Your task to perform on an android device: toggle priority inbox in the gmail app Image 0: 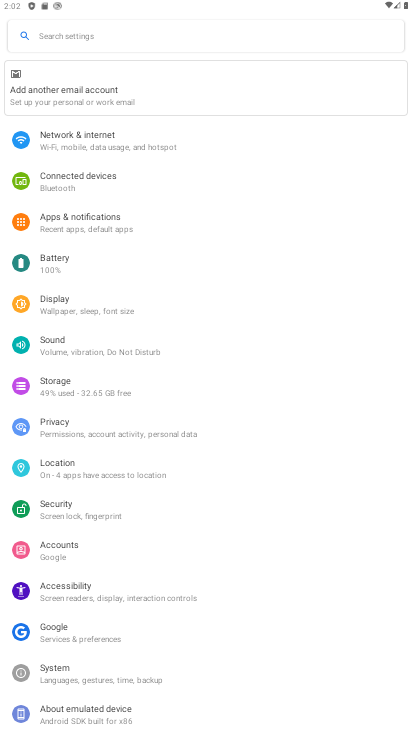
Step 0: press home button
Your task to perform on an android device: toggle priority inbox in the gmail app Image 1: 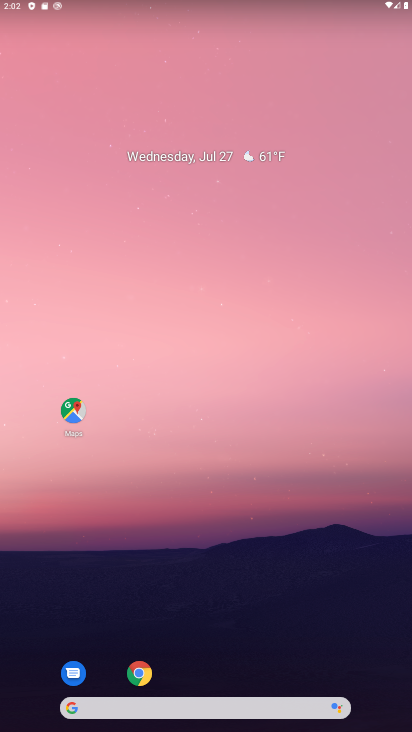
Step 1: drag from (213, 662) to (194, 114)
Your task to perform on an android device: toggle priority inbox in the gmail app Image 2: 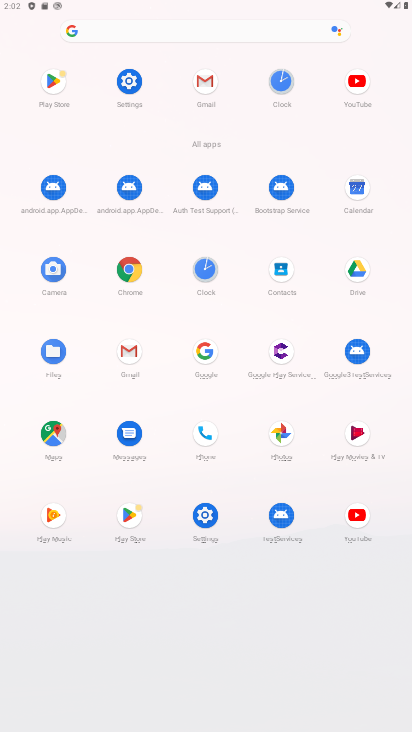
Step 2: click (205, 70)
Your task to perform on an android device: toggle priority inbox in the gmail app Image 3: 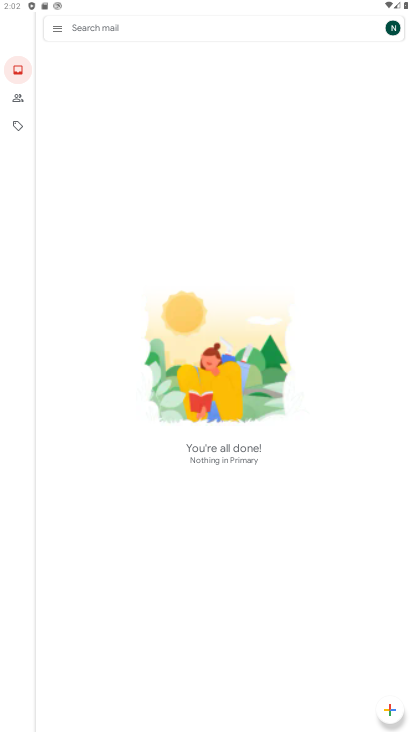
Step 3: click (55, 40)
Your task to perform on an android device: toggle priority inbox in the gmail app Image 4: 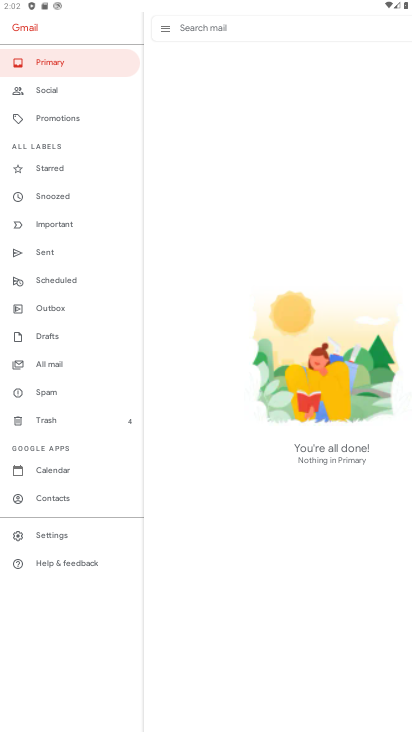
Step 4: click (61, 539)
Your task to perform on an android device: toggle priority inbox in the gmail app Image 5: 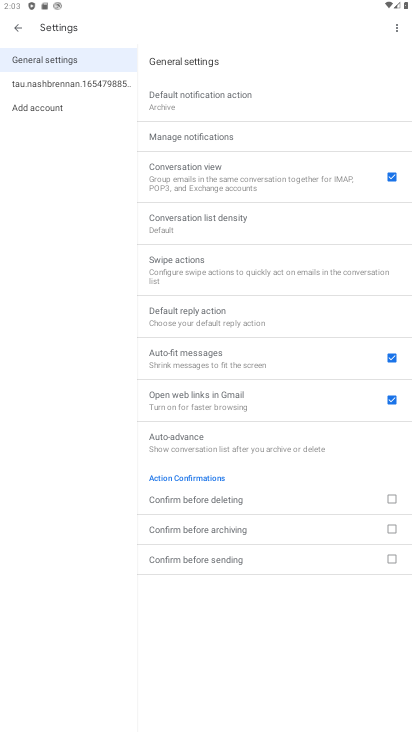
Step 5: click (113, 90)
Your task to perform on an android device: toggle priority inbox in the gmail app Image 6: 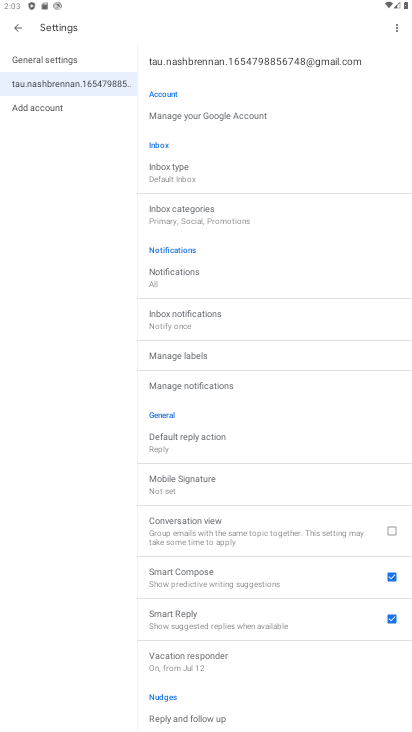
Step 6: click (210, 175)
Your task to perform on an android device: toggle priority inbox in the gmail app Image 7: 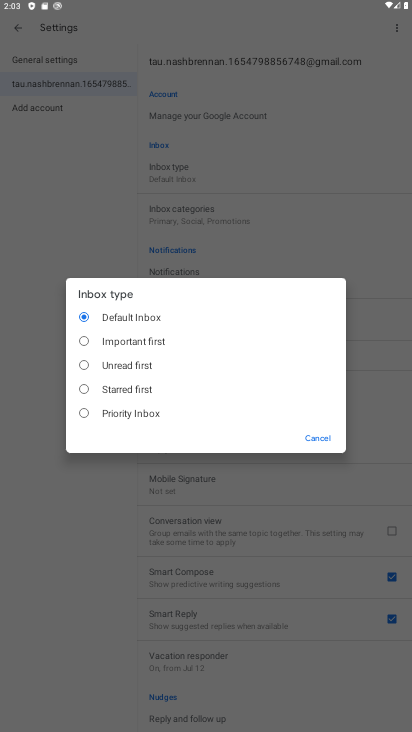
Step 7: click (123, 388)
Your task to perform on an android device: toggle priority inbox in the gmail app Image 8: 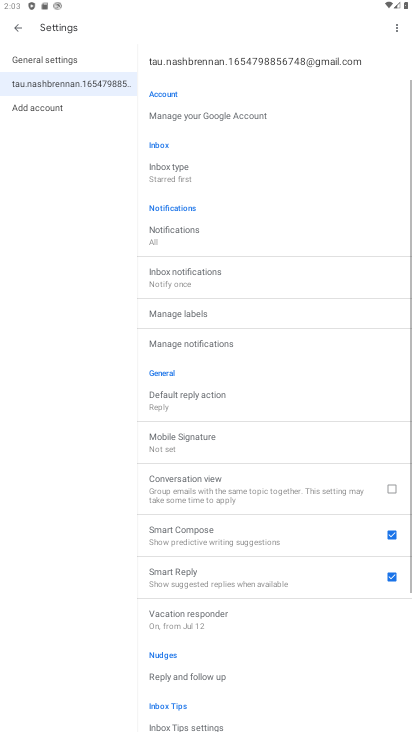
Step 8: task complete